Your task to perform on an android device: Open Wikipedia Image 0: 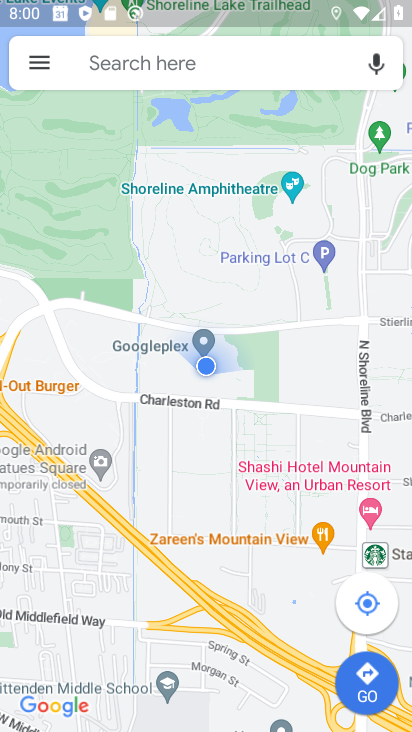
Step 0: press home button
Your task to perform on an android device: Open Wikipedia Image 1: 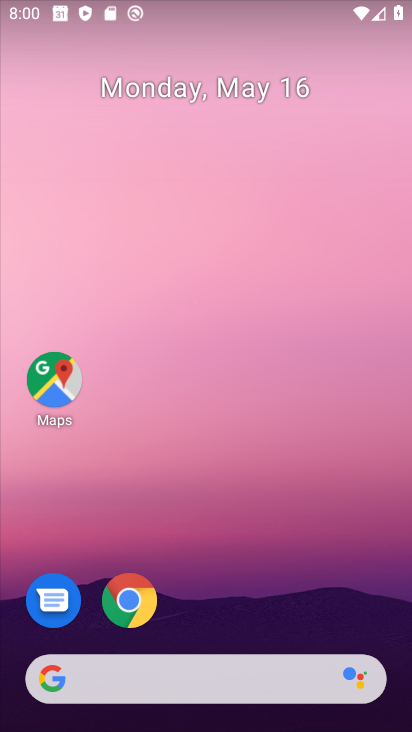
Step 1: click (131, 600)
Your task to perform on an android device: Open Wikipedia Image 2: 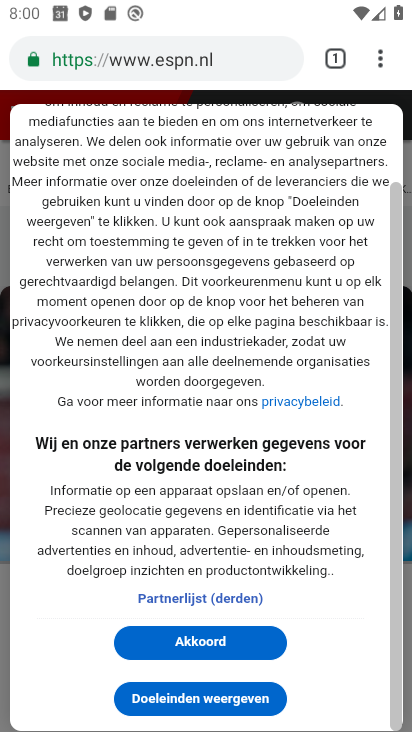
Step 2: click (213, 62)
Your task to perform on an android device: Open Wikipedia Image 3: 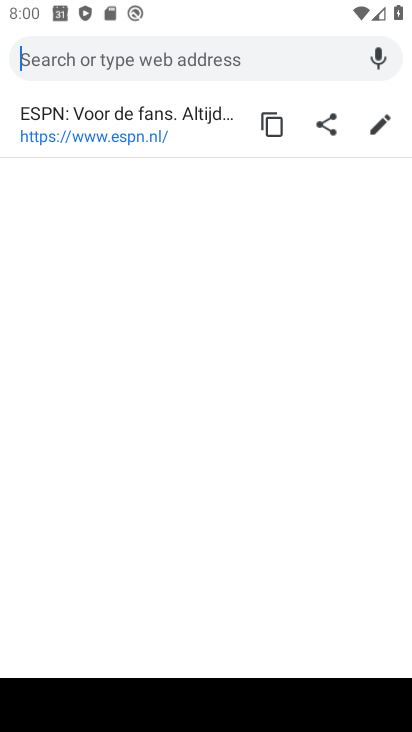
Step 3: type "wikipedia"
Your task to perform on an android device: Open Wikipedia Image 4: 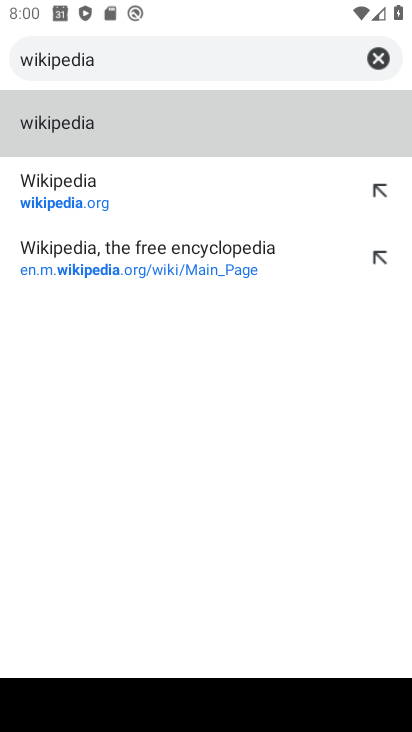
Step 4: click (63, 182)
Your task to perform on an android device: Open Wikipedia Image 5: 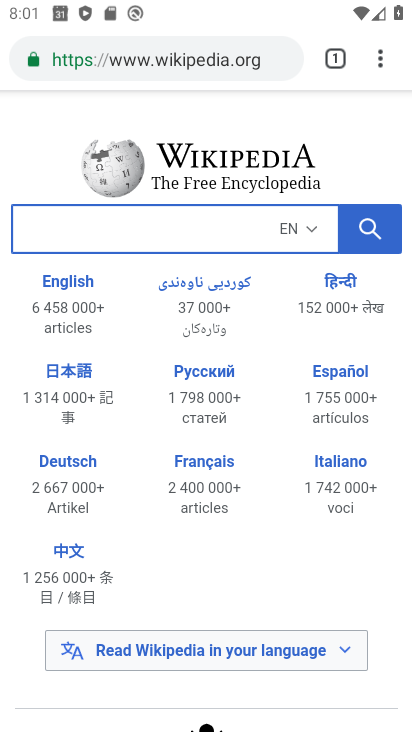
Step 5: task complete